Your task to perform on an android device: delete a single message in the gmail app Image 0: 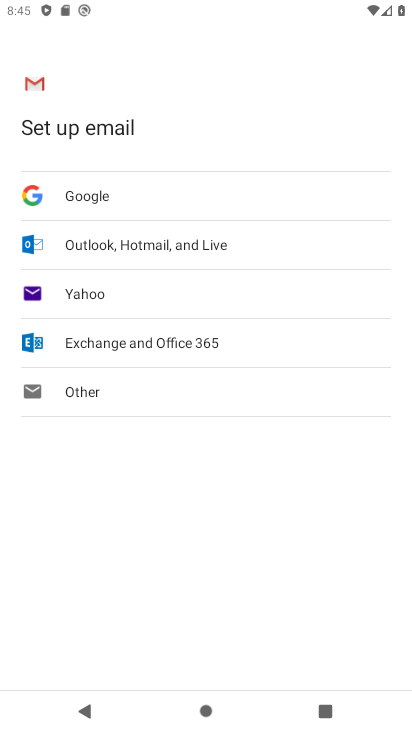
Step 0: press home button
Your task to perform on an android device: delete a single message in the gmail app Image 1: 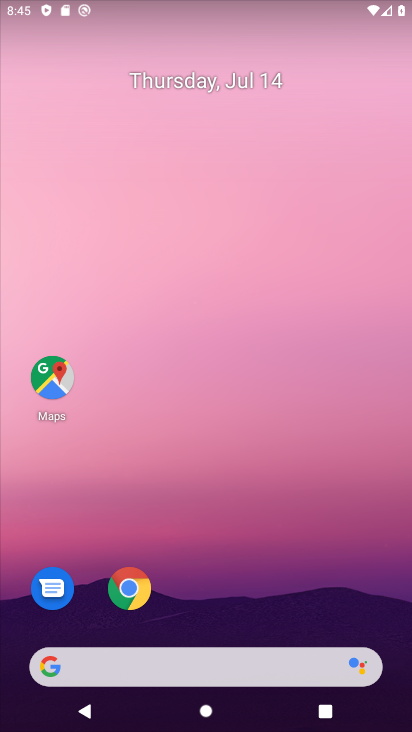
Step 1: drag from (257, 547) to (214, 57)
Your task to perform on an android device: delete a single message in the gmail app Image 2: 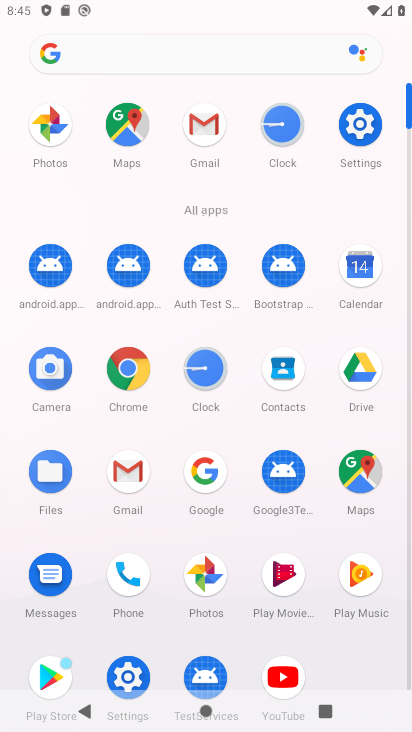
Step 2: click (193, 130)
Your task to perform on an android device: delete a single message in the gmail app Image 3: 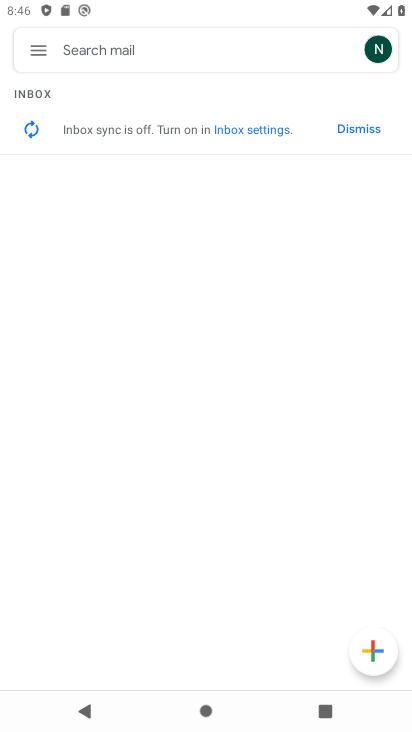
Step 3: click (36, 49)
Your task to perform on an android device: delete a single message in the gmail app Image 4: 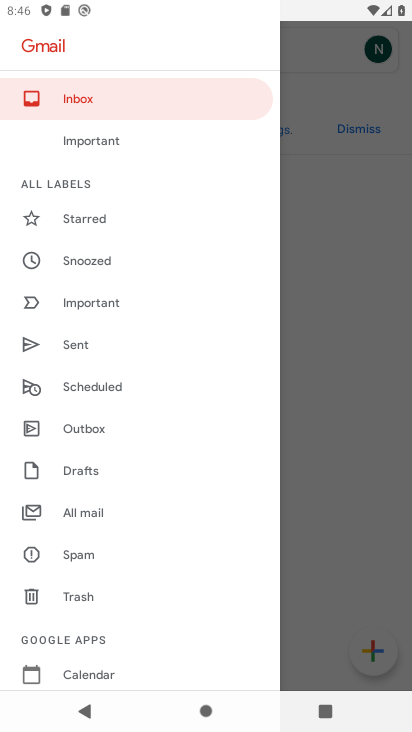
Step 4: click (84, 519)
Your task to perform on an android device: delete a single message in the gmail app Image 5: 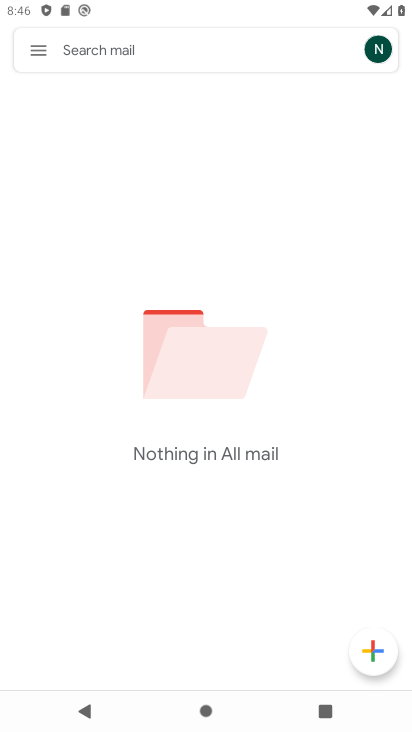
Step 5: task complete